Your task to perform on an android device: snooze an email in the gmail app Image 0: 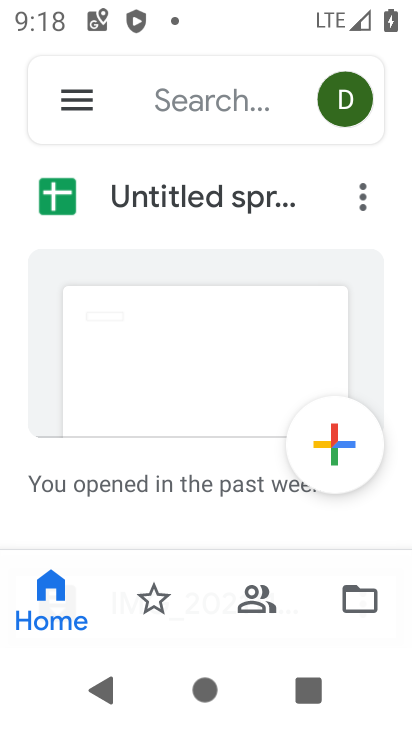
Step 0: press home button
Your task to perform on an android device: snooze an email in the gmail app Image 1: 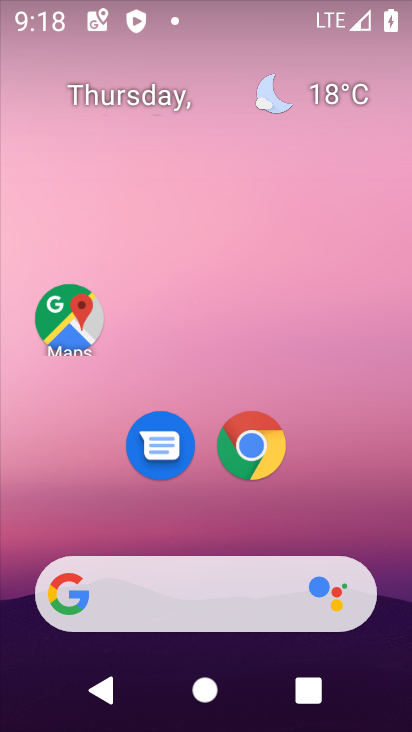
Step 1: drag from (381, 541) to (290, 128)
Your task to perform on an android device: snooze an email in the gmail app Image 2: 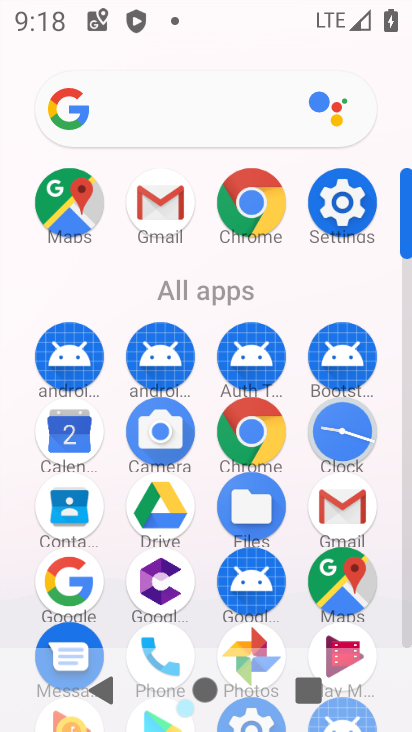
Step 2: click (164, 219)
Your task to perform on an android device: snooze an email in the gmail app Image 3: 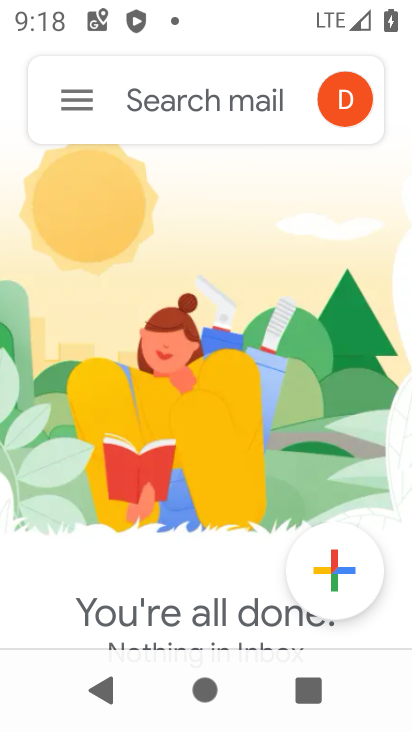
Step 3: click (87, 118)
Your task to perform on an android device: snooze an email in the gmail app Image 4: 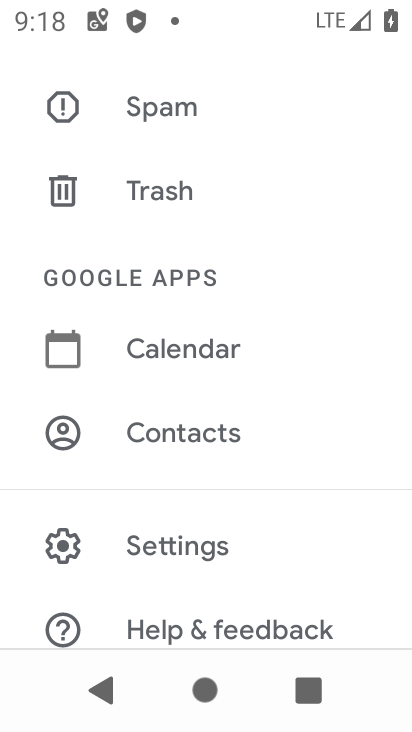
Step 4: drag from (197, 138) to (249, 546)
Your task to perform on an android device: snooze an email in the gmail app Image 5: 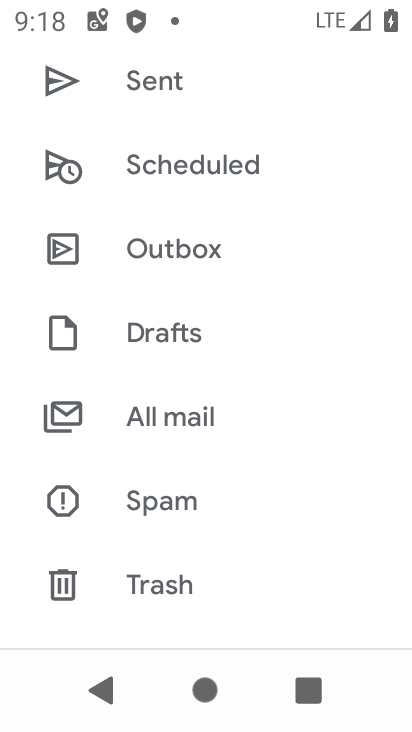
Step 5: drag from (202, 143) to (226, 473)
Your task to perform on an android device: snooze an email in the gmail app Image 6: 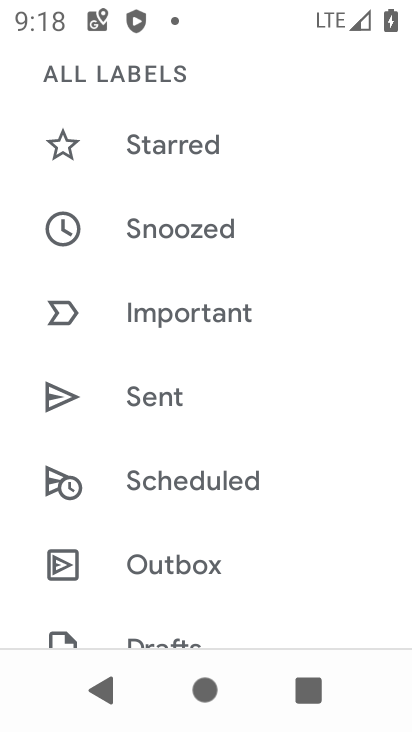
Step 6: drag from (188, 166) to (131, 584)
Your task to perform on an android device: snooze an email in the gmail app Image 7: 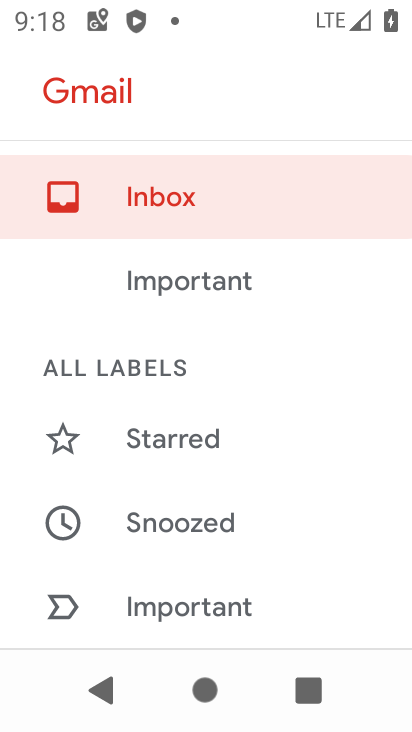
Step 7: click (121, 218)
Your task to perform on an android device: snooze an email in the gmail app Image 8: 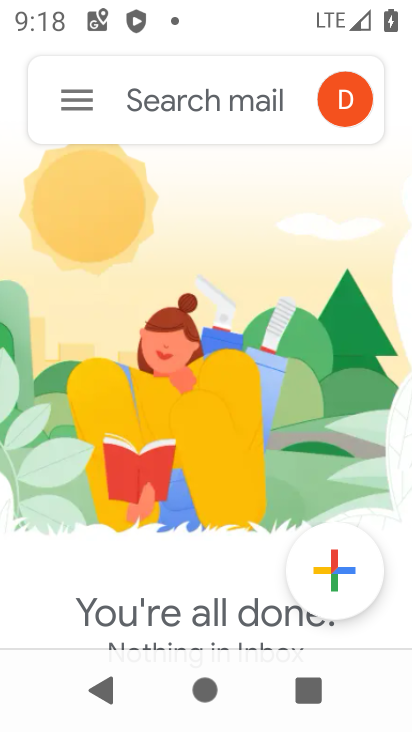
Step 8: task complete